Your task to perform on an android device: check out phone information Image 0: 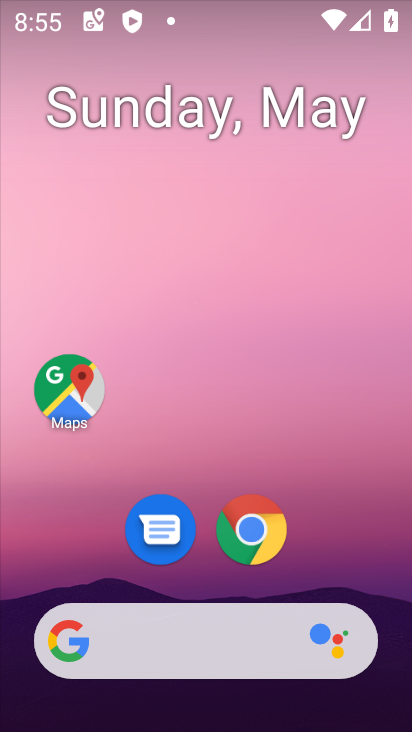
Step 0: drag from (368, 540) to (332, 19)
Your task to perform on an android device: check out phone information Image 1: 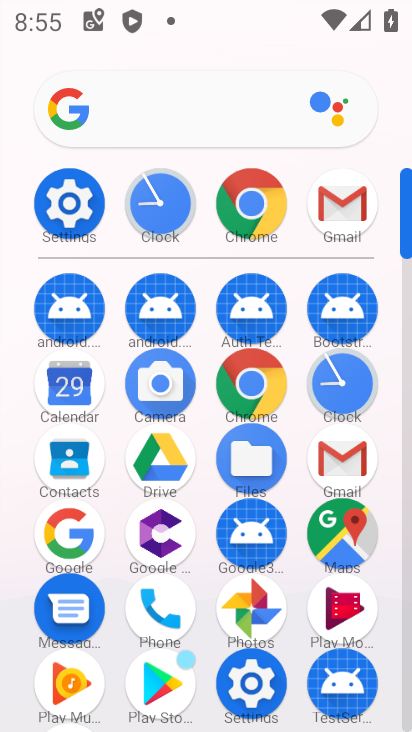
Step 1: click (75, 208)
Your task to perform on an android device: check out phone information Image 2: 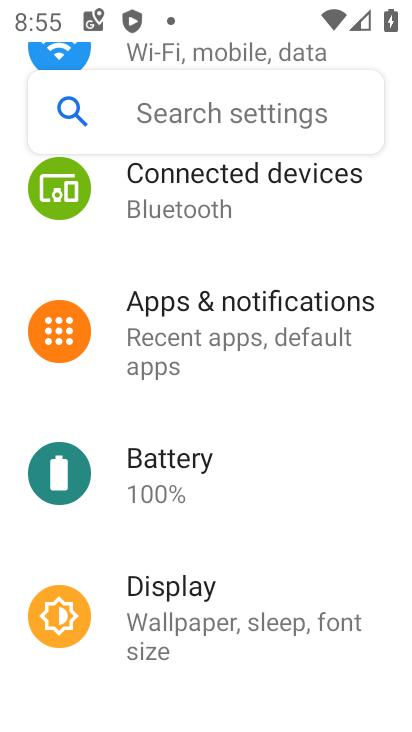
Step 2: task complete